Your task to perform on an android device: Go to CNN.com Image 0: 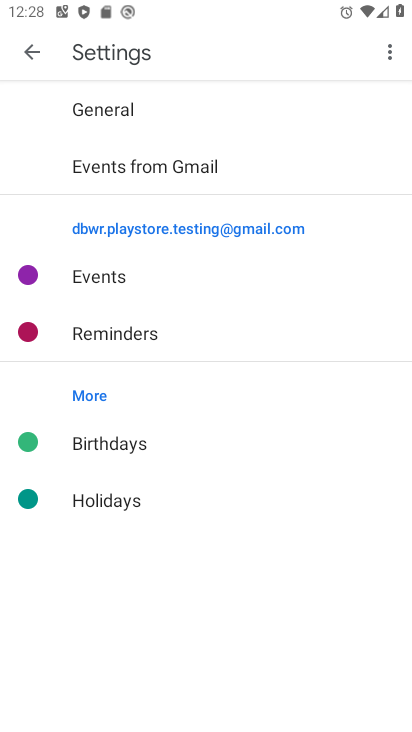
Step 0: press home button
Your task to perform on an android device: Go to CNN.com Image 1: 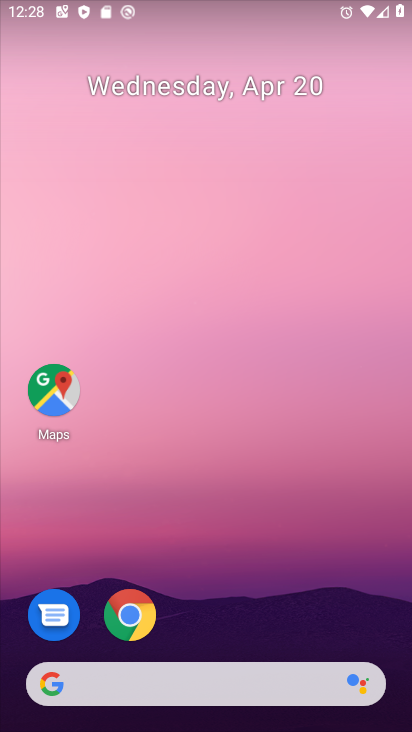
Step 1: click (140, 612)
Your task to perform on an android device: Go to CNN.com Image 2: 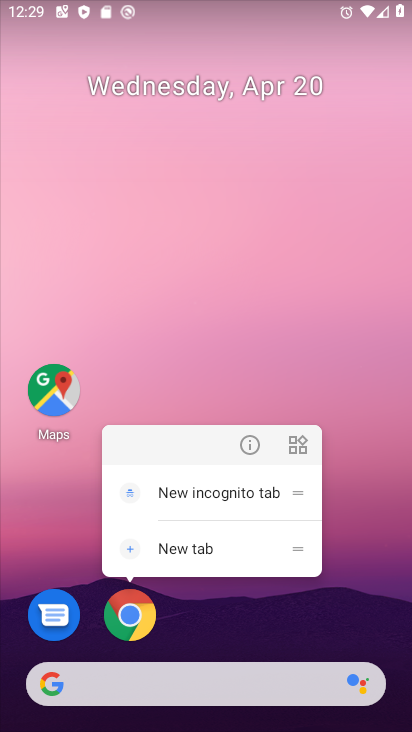
Step 2: click (140, 612)
Your task to perform on an android device: Go to CNN.com Image 3: 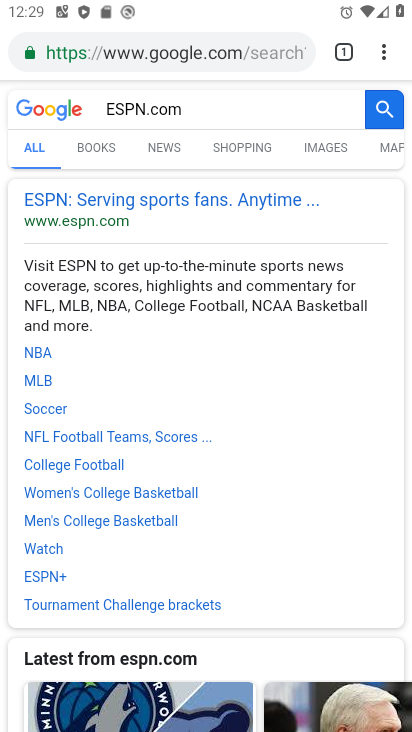
Step 3: click (255, 107)
Your task to perform on an android device: Go to CNN.com Image 4: 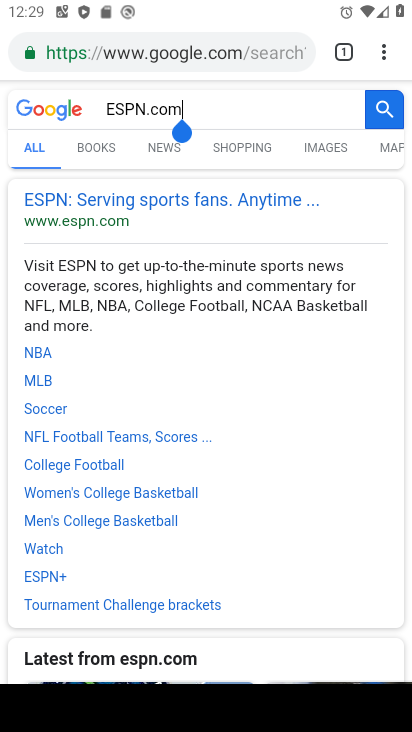
Step 4: click (372, 110)
Your task to perform on an android device: Go to CNN.com Image 5: 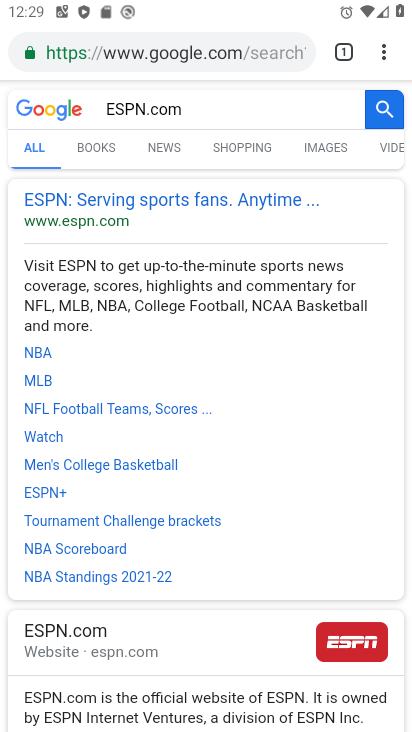
Step 5: click (185, 99)
Your task to perform on an android device: Go to CNN.com Image 6: 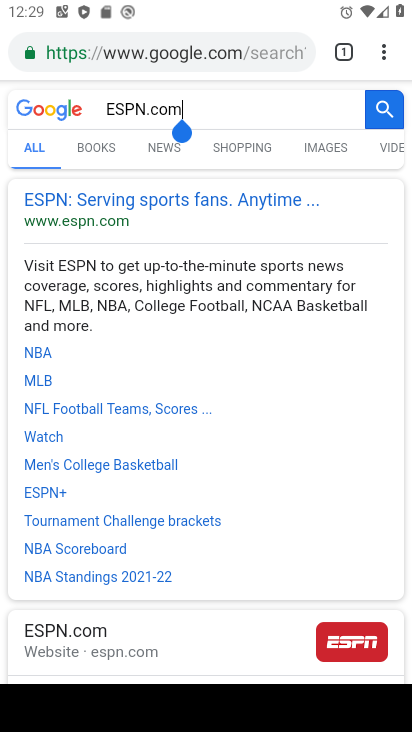
Step 6: click (212, 101)
Your task to perform on an android device: Go to CNN.com Image 7: 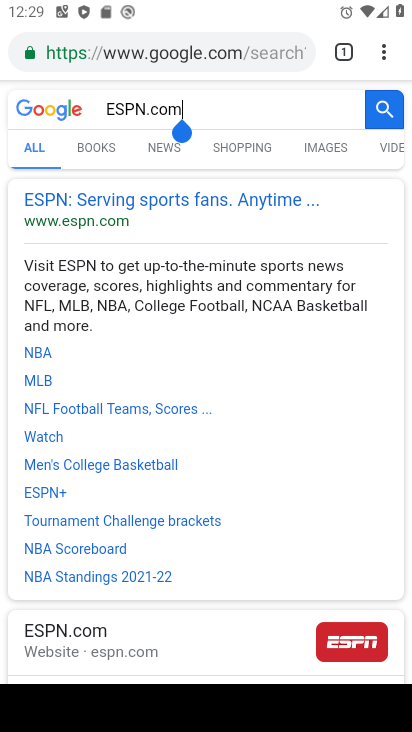
Step 7: press home button
Your task to perform on an android device: Go to CNN.com Image 8: 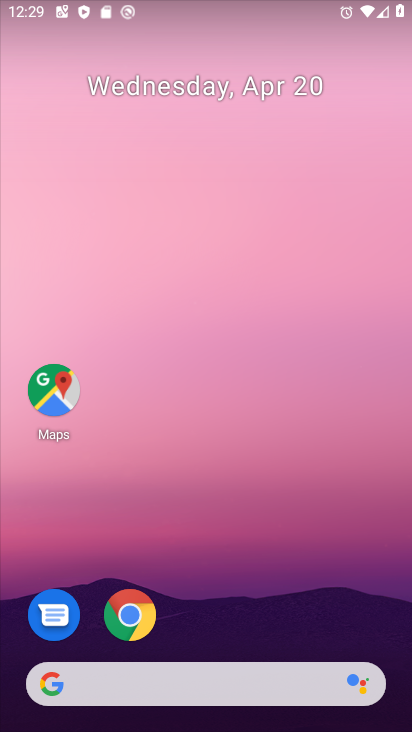
Step 8: click (132, 606)
Your task to perform on an android device: Go to CNN.com Image 9: 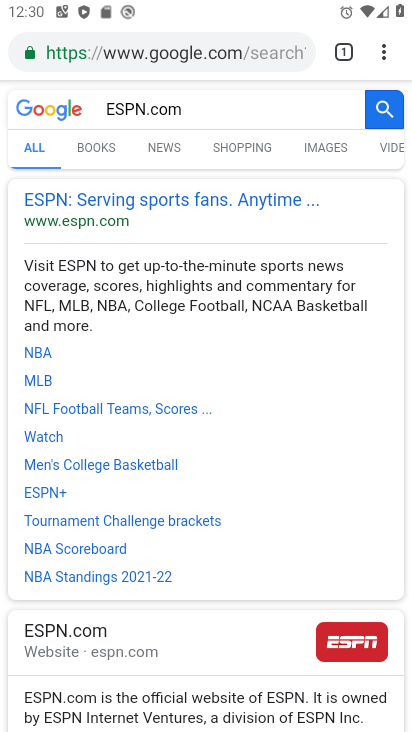
Step 9: click (219, 114)
Your task to perform on an android device: Go to CNN.com Image 10: 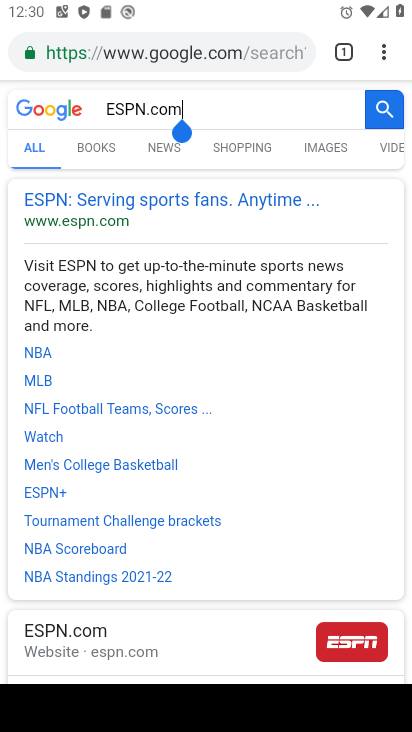
Step 10: type " CNN.com"
Your task to perform on an android device: Go to CNN.com Image 11: 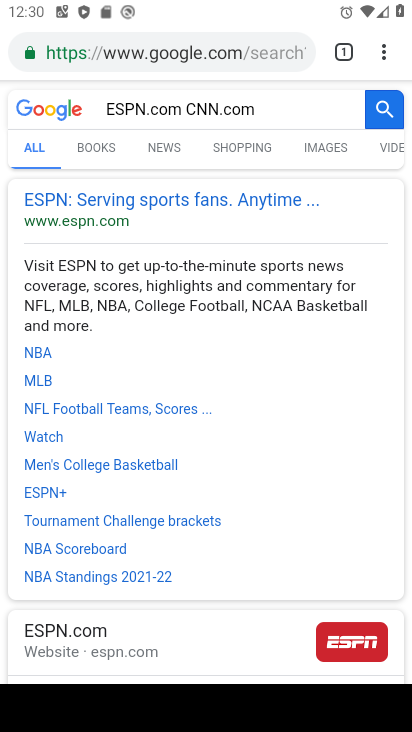
Step 11: click (179, 106)
Your task to perform on an android device: Go to CNN.com Image 12: 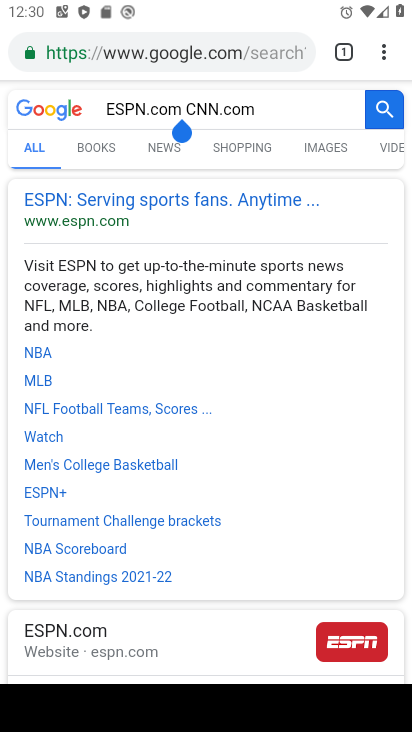
Step 12: click (295, 110)
Your task to perform on an android device: Go to CNN.com Image 13: 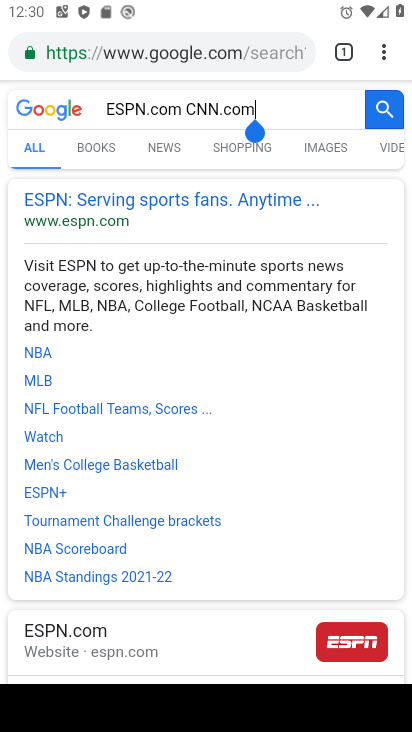
Step 13: click (339, 48)
Your task to perform on an android device: Go to CNN.com Image 14: 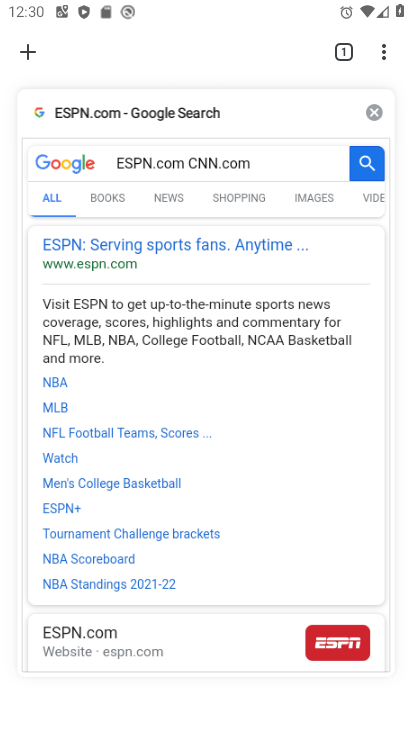
Step 14: click (366, 120)
Your task to perform on an android device: Go to CNN.com Image 15: 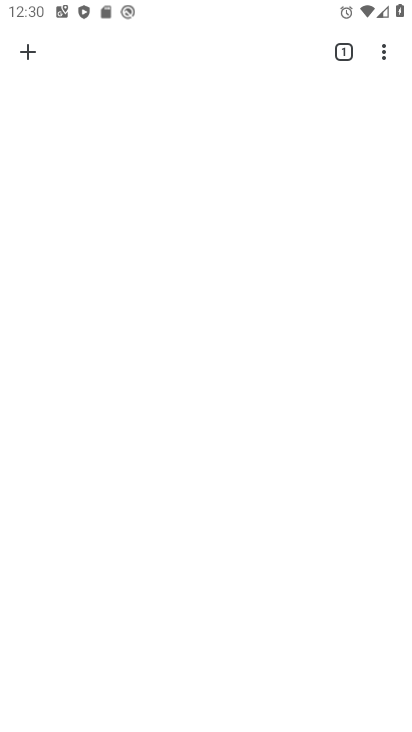
Step 15: click (370, 114)
Your task to perform on an android device: Go to CNN.com Image 16: 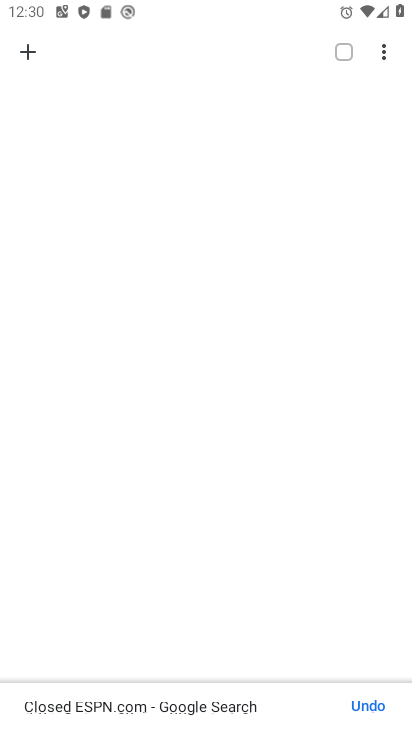
Step 16: click (384, 43)
Your task to perform on an android device: Go to CNN.com Image 17: 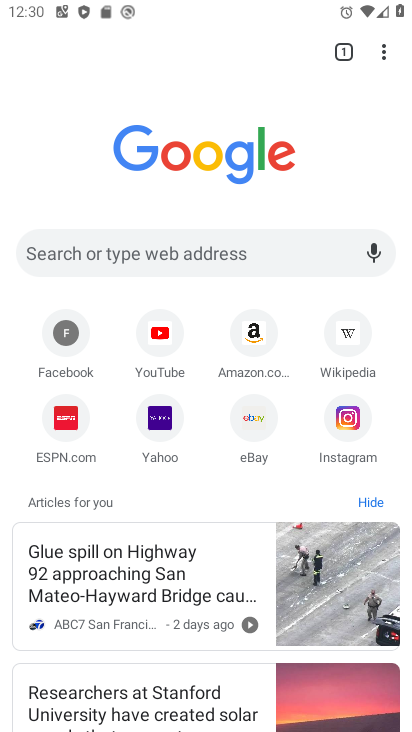
Step 17: click (153, 241)
Your task to perform on an android device: Go to CNN.com Image 18: 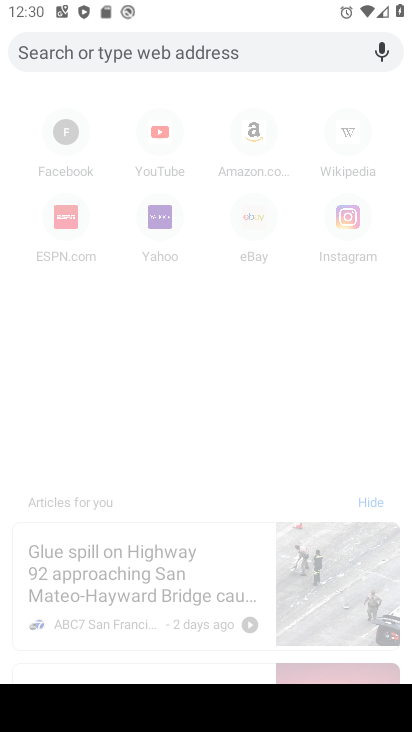
Step 18: type "CNN.com"
Your task to perform on an android device: Go to CNN.com Image 19: 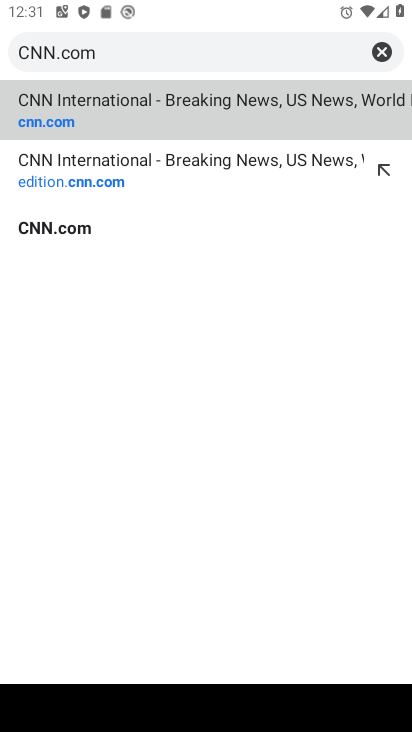
Step 19: click (48, 116)
Your task to perform on an android device: Go to CNN.com Image 20: 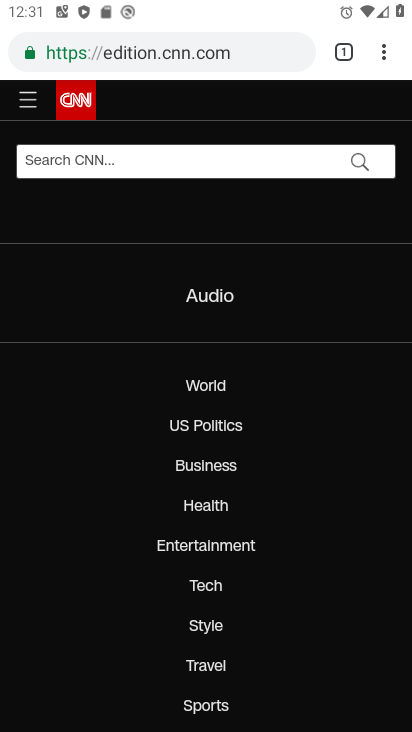
Step 20: task complete